Your task to perform on an android device: Go to internet settings Image 0: 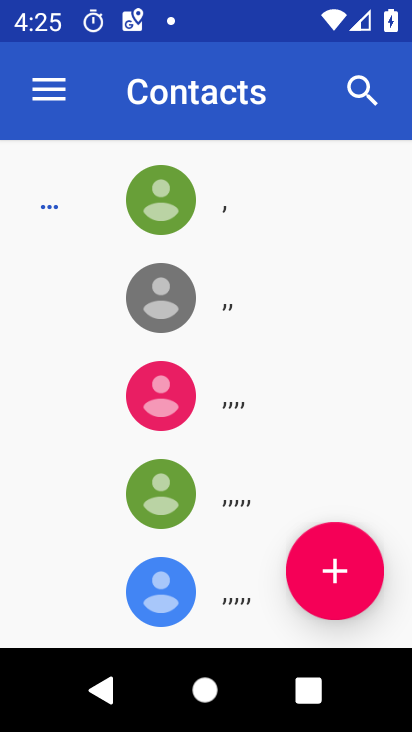
Step 0: press home button
Your task to perform on an android device: Go to internet settings Image 1: 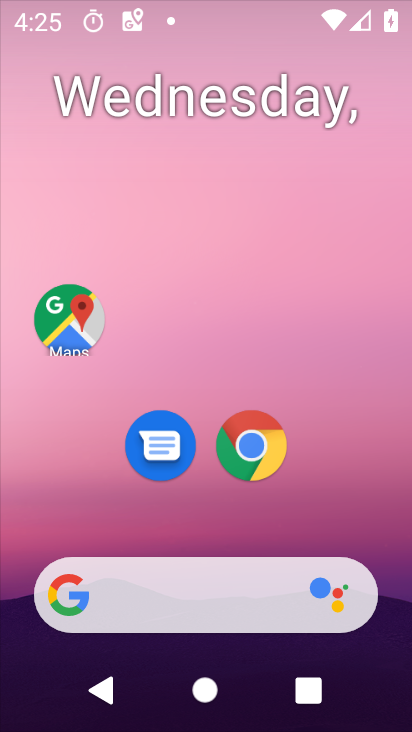
Step 1: drag from (211, 524) to (215, 76)
Your task to perform on an android device: Go to internet settings Image 2: 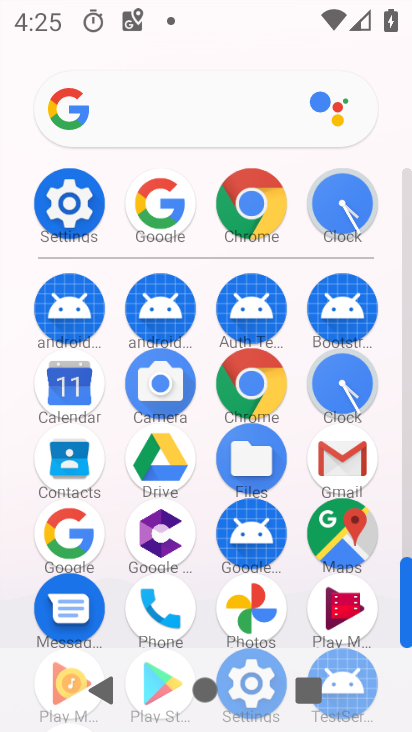
Step 2: click (63, 217)
Your task to perform on an android device: Go to internet settings Image 3: 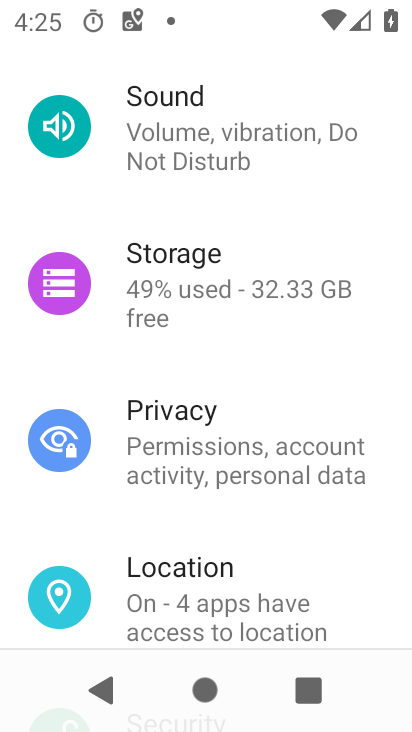
Step 3: drag from (207, 156) to (318, 698)
Your task to perform on an android device: Go to internet settings Image 4: 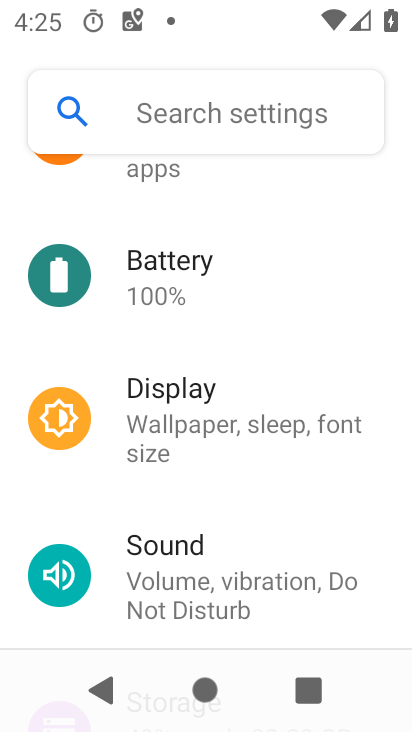
Step 4: drag from (145, 198) to (281, 709)
Your task to perform on an android device: Go to internet settings Image 5: 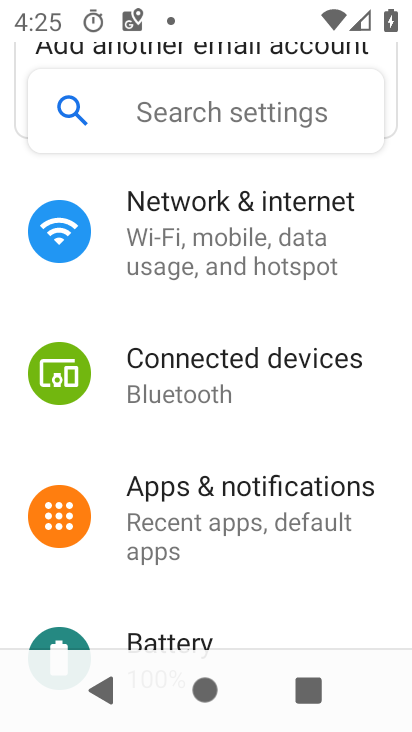
Step 5: click (213, 213)
Your task to perform on an android device: Go to internet settings Image 6: 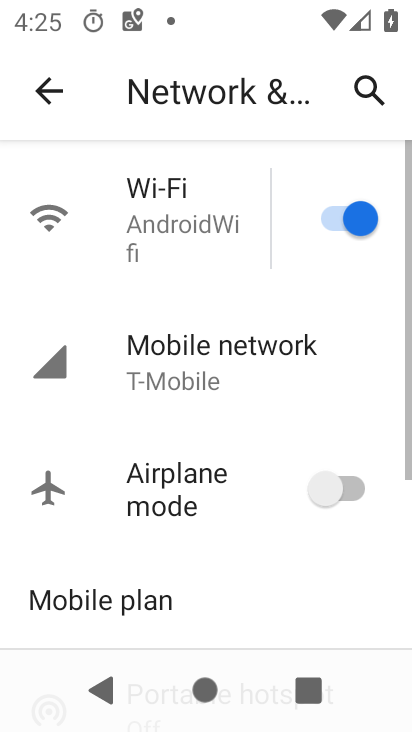
Step 6: click (156, 222)
Your task to perform on an android device: Go to internet settings Image 7: 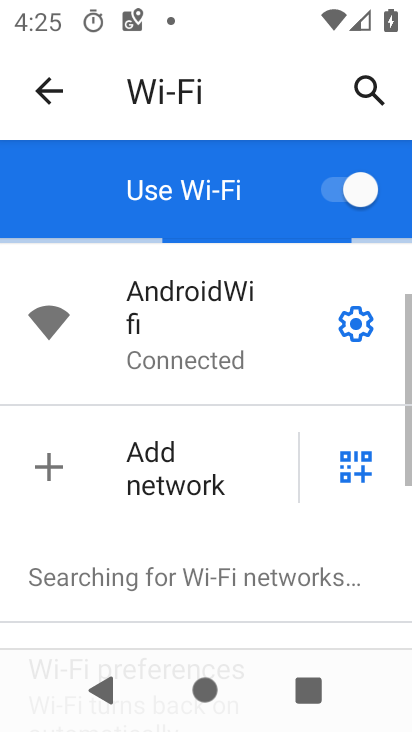
Step 7: click (357, 328)
Your task to perform on an android device: Go to internet settings Image 8: 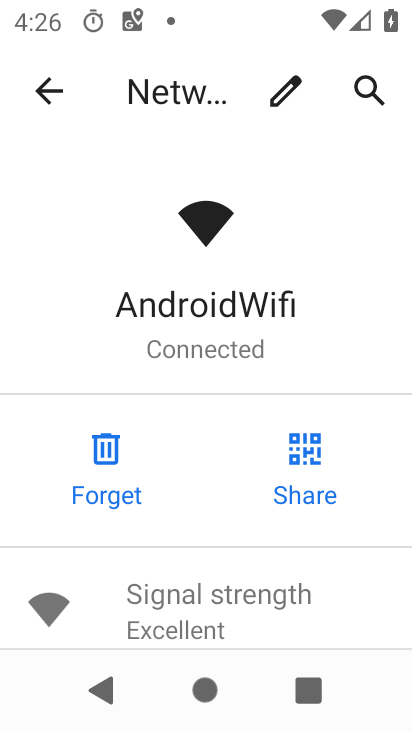
Step 8: task complete